Your task to perform on an android device: Go to CNN.com Image 0: 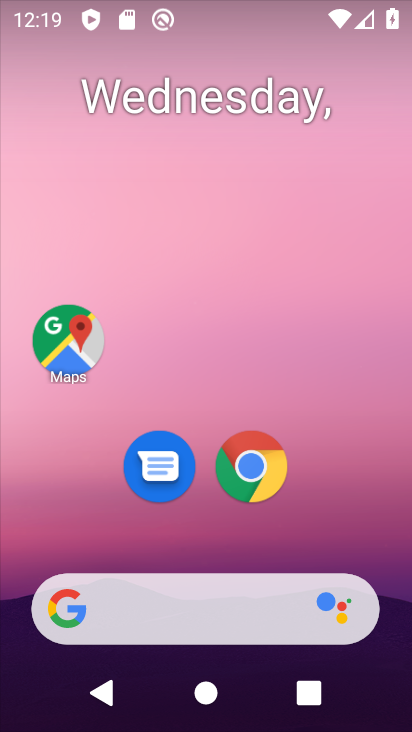
Step 0: click (264, 454)
Your task to perform on an android device: Go to CNN.com Image 1: 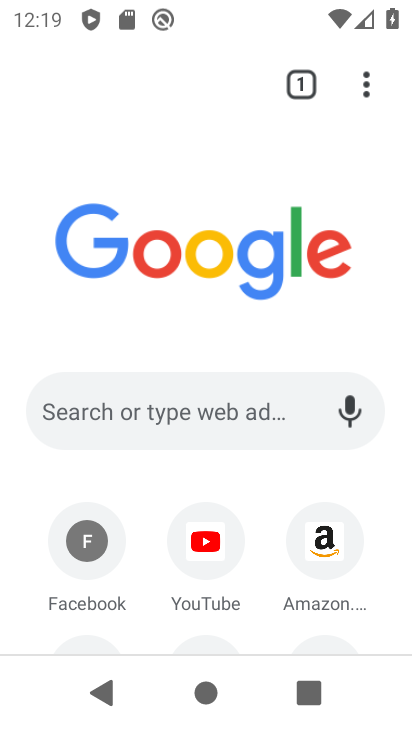
Step 1: click (225, 421)
Your task to perform on an android device: Go to CNN.com Image 2: 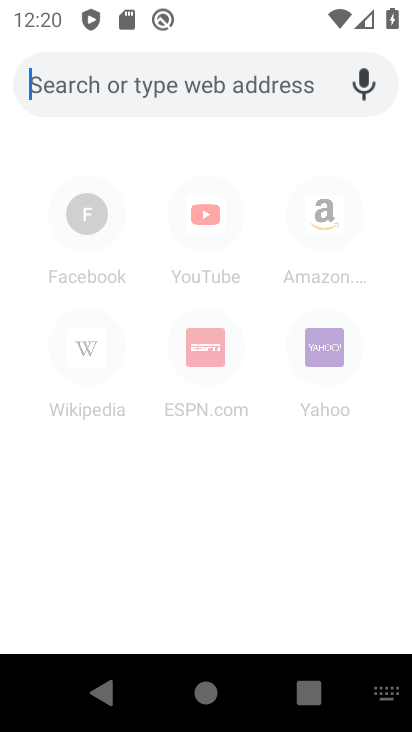
Step 2: type "cnn.com"
Your task to perform on an android device: Go to CNN.com Image 3: 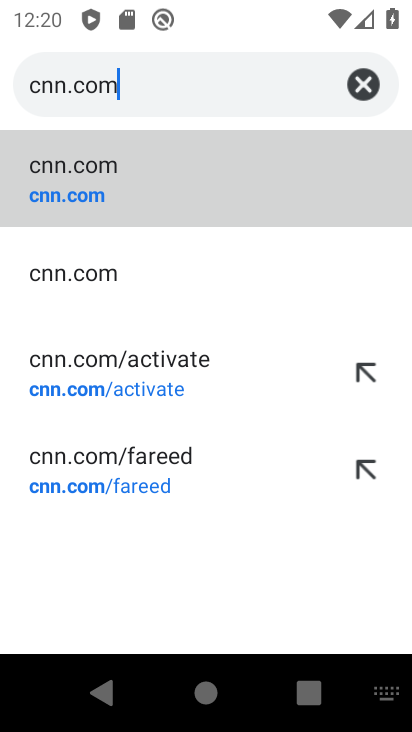
Step 3: click (79, 191)
Your task to perform on an android device: Go to CNN.com Image 4: 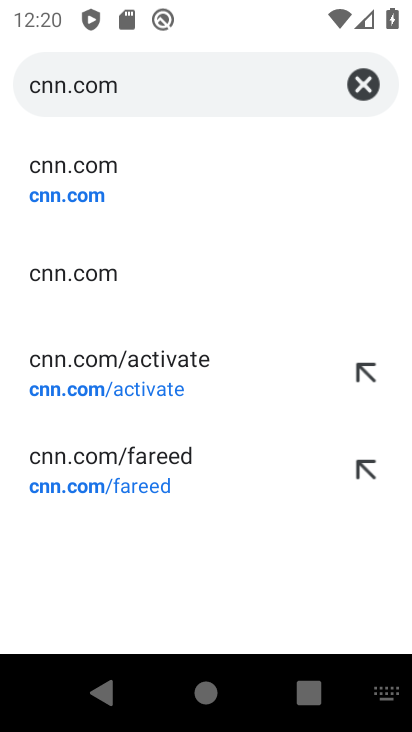
Step 4: click (94, 195)
Your task to perform on an android device: Go to CNN.com Image 5: 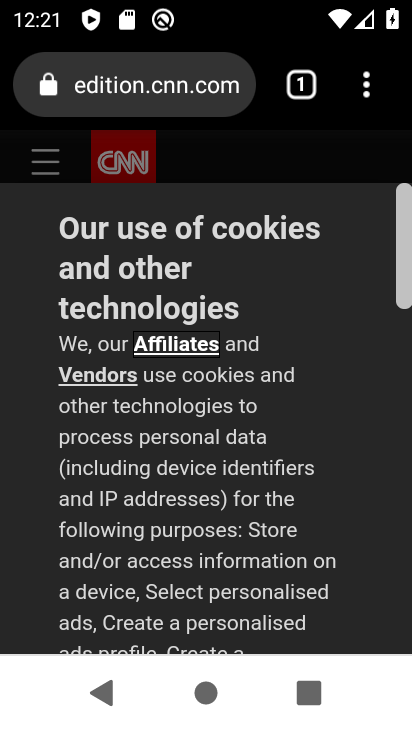
Step 5: task complete